Your task to perform on an android device: toggle sleep mode Image 0: 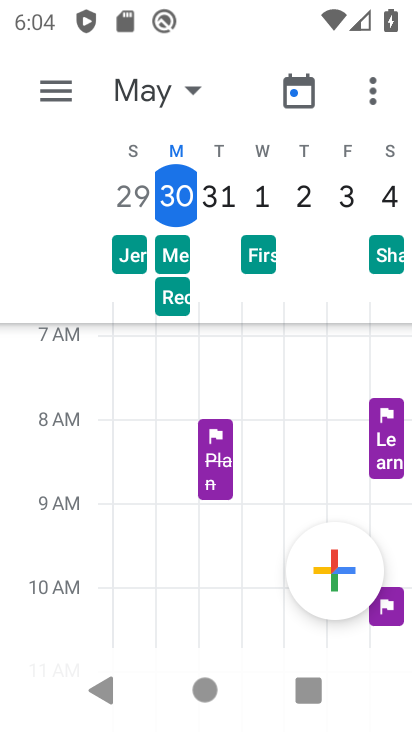
Step 0: press home button
Your task to perform on an android device: toggle sleep mode Image 1: 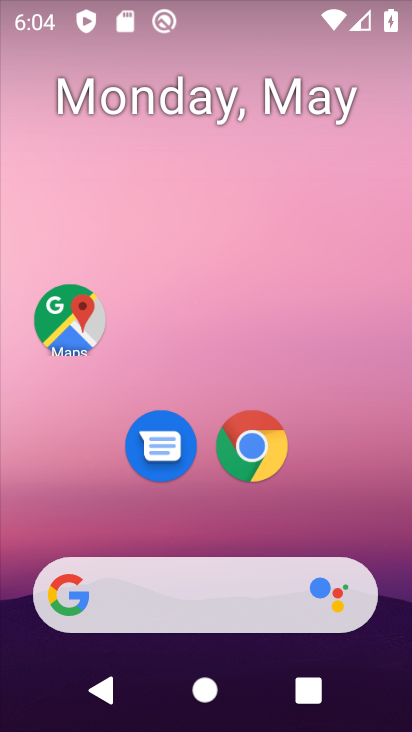
Step 1: drag from (354, 444) to (218, 128)
Your task to perform on an android device: toggle sleep mode Image 2: 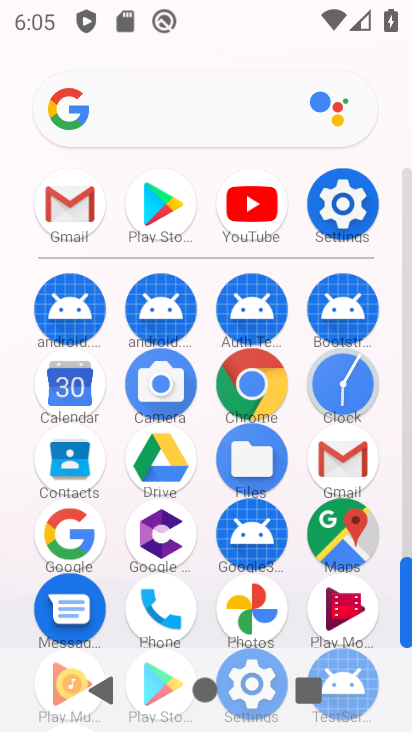
Step 2: click (346, 196)
Your task to perform on an android device: toggle sleep mode Image 3: 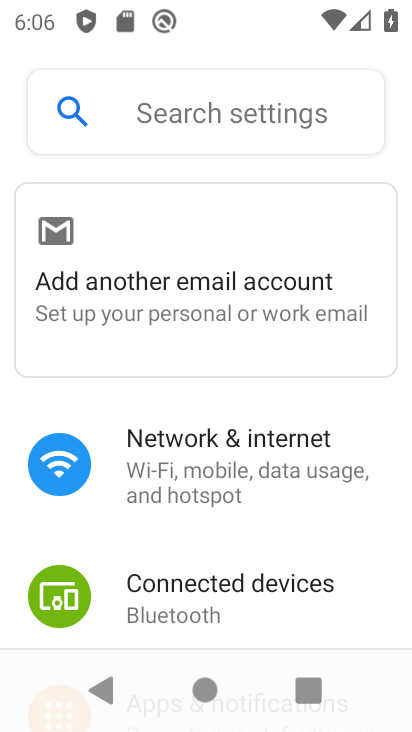
Step 3: drag from (239, 484) to (159, 145)
Your task to perform on an android device: toggle sleep mode Image 4: 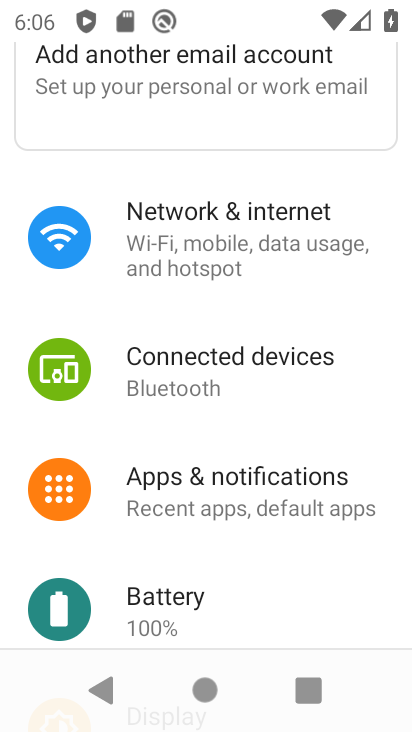
Step 4: click (196, 359)
Your task to perform on an android device: toggle sleep mode Image 5: 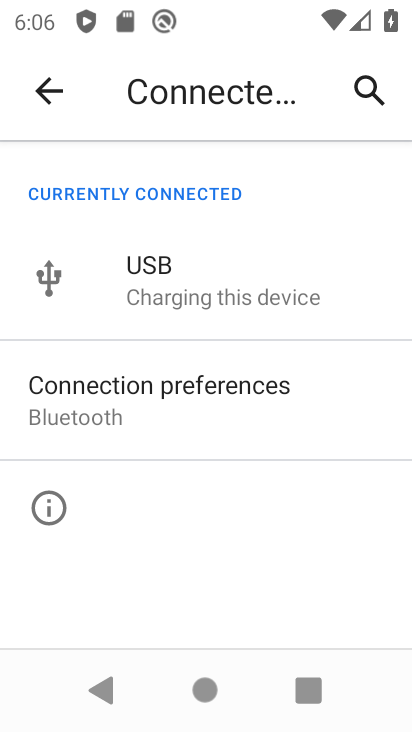
Step 5: click (37, 88)
Your task to perform on an android device: toggle sleep mode Image 6: 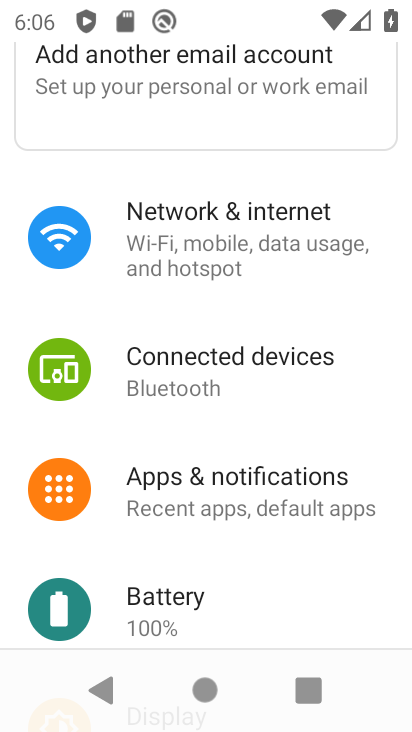
Step 6: drag from (203, 446) to (187, 219)
Your task to perform on an android device: toggle sleep mode Image 7: 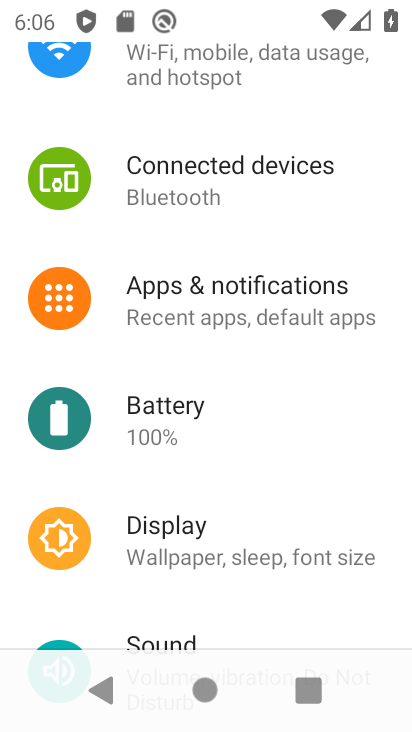
Step 7: drag from (194, 253) to (239, 716)
Your task to perform on an android device: toggle sleep mode Image 8: 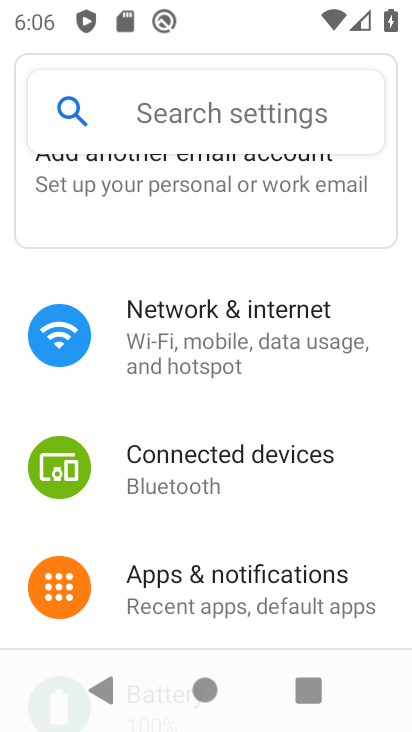
Step 8: drag from (223, 518) to (188, 201)
Your task to perform on an android device: toggle sleep mode Image 9: 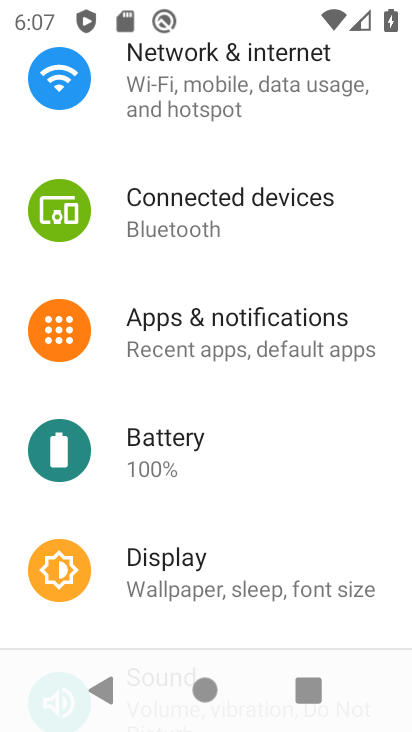
Step 9: click (188, 327)
Your task to perform on an android device: toggle sleep mode Image 10: 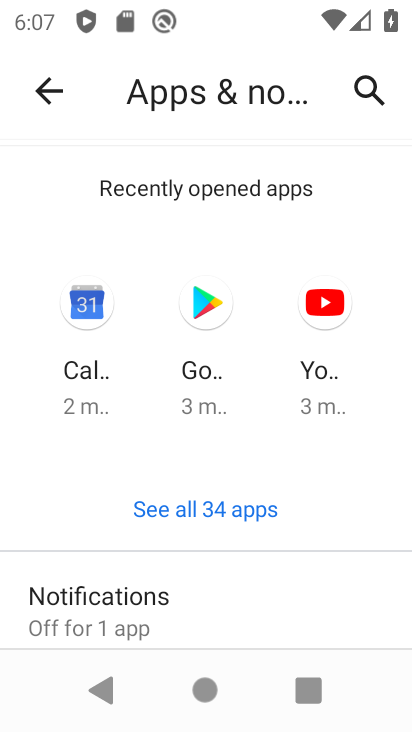
Step 10: task complete